Your task to perform on an android device: Go to ESPN.com Image 0: 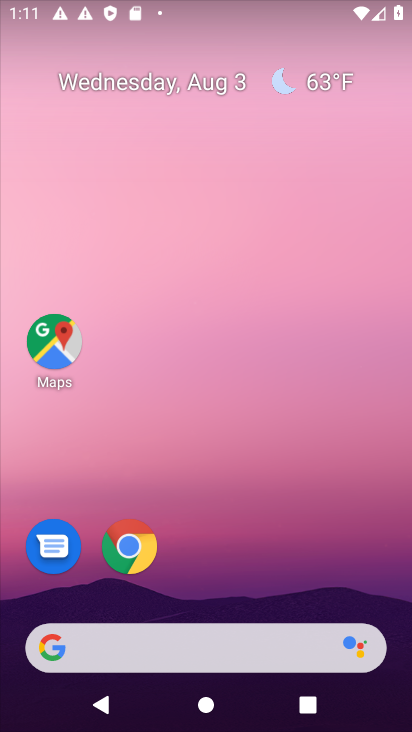
Step 0: drag from (234, 533) to (192, 0)
Your task to perform on an android device: Go to ESPN.com Image 1: 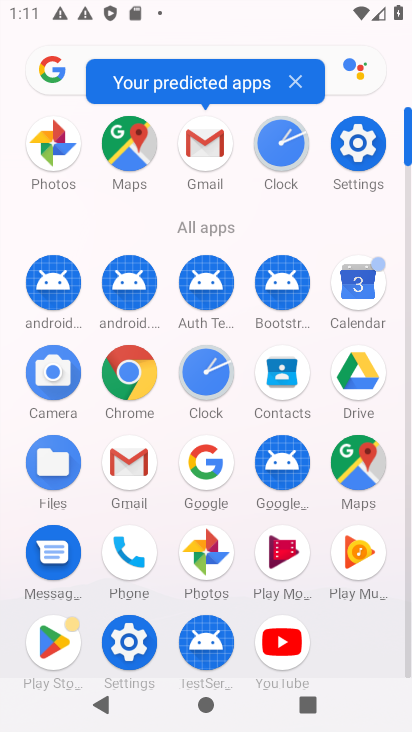
Step 1: click (118, 387)
Your task to perform on an android device: Go to ESPN.com Image 2: 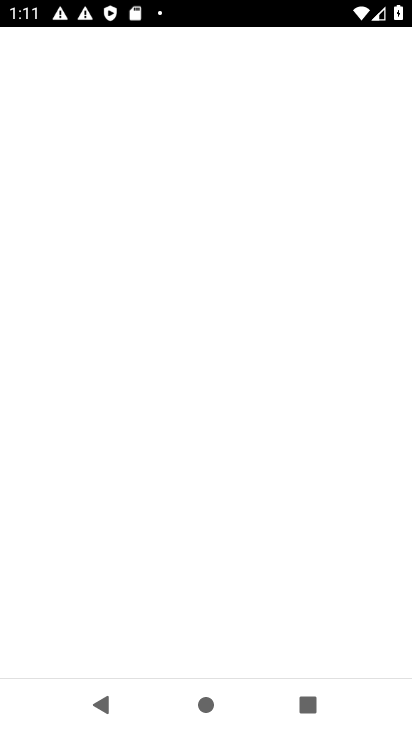
Step 2: press back button
Your task to perform on an android device: Go to ESPN.com Image 3: 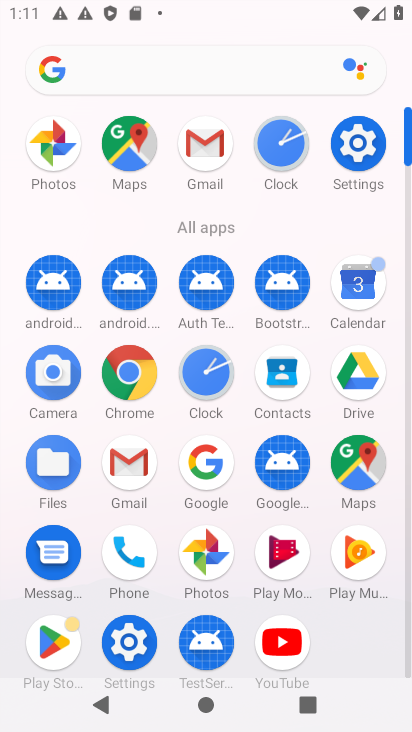
Step 3: click (136, 370)
Your task to perform on an android device: Go to ESPN.com Image 4: 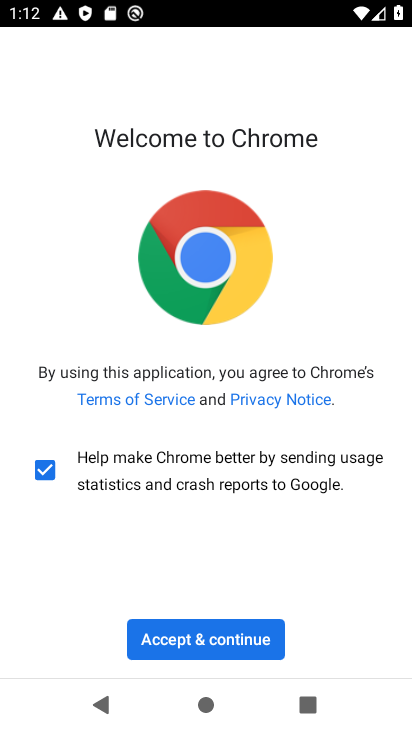
Step 4: click (237, 636)
Your task to perform on an android device: Go to ESPN.com Image 5: 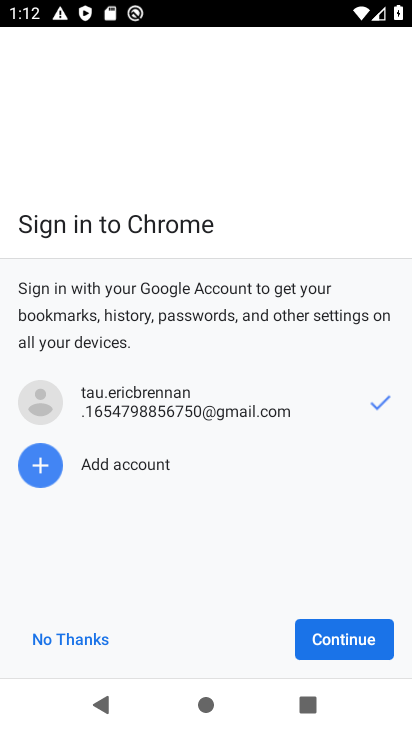
Step 5: click (96, 634)
Your task to perform on an android device: Go to ESPN.com Image 6: 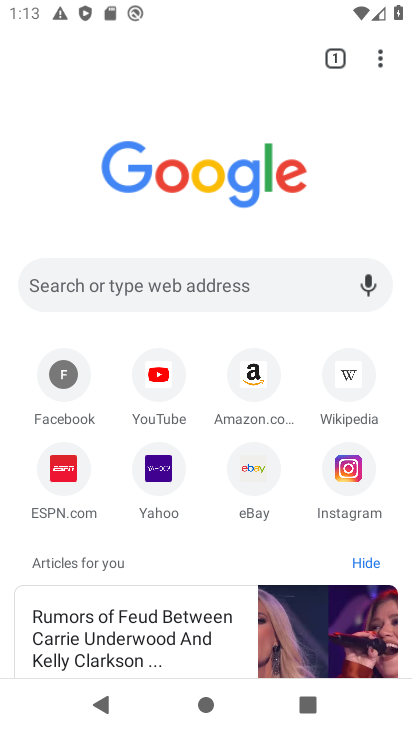
Step 6: click (54, 470)
Your task to perform on an android device: Go to ESPN.com Image 7: 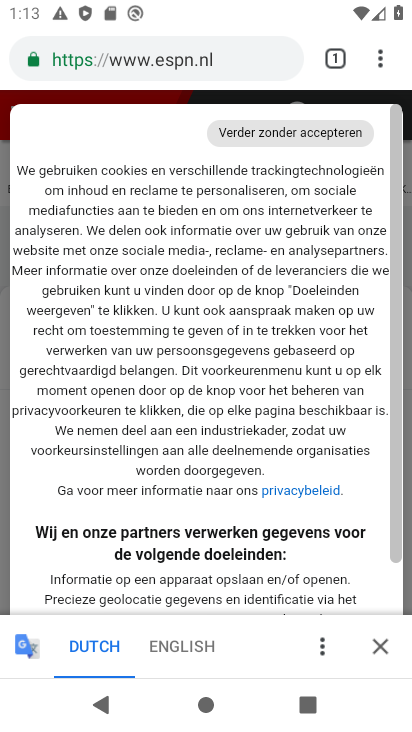
Step 7: task complete